Your task to perform on an android device: Is it going to rain this weekend? Image 0: 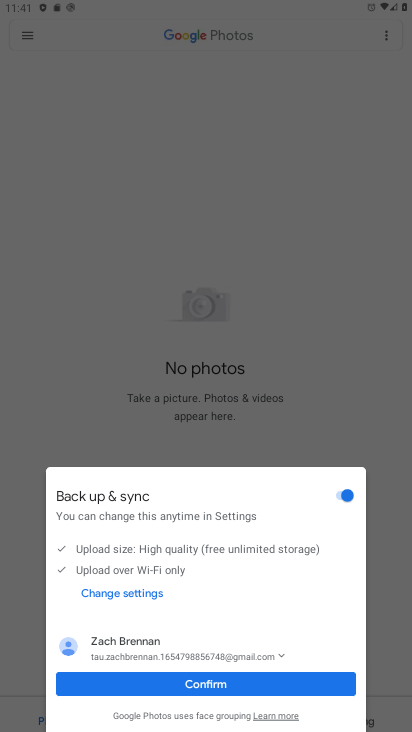
Step 0: click (263, 413)
Your task to perform on an android device: Is it going to rain this weekend? Image 1: 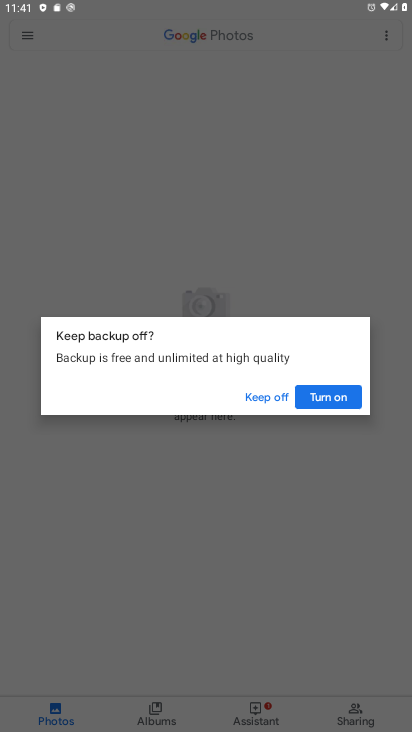
Step 1: press home button
Your task to perform on an android device: Is it going to rain this weekend? Image 2: 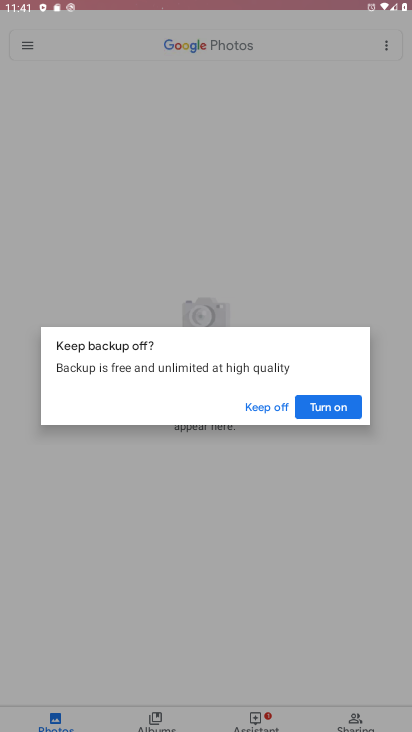
Step 2: drag from (181, 597) to (248, 352)
Your task to perform on an android device: Is it going to rain this weekend? Image 3: 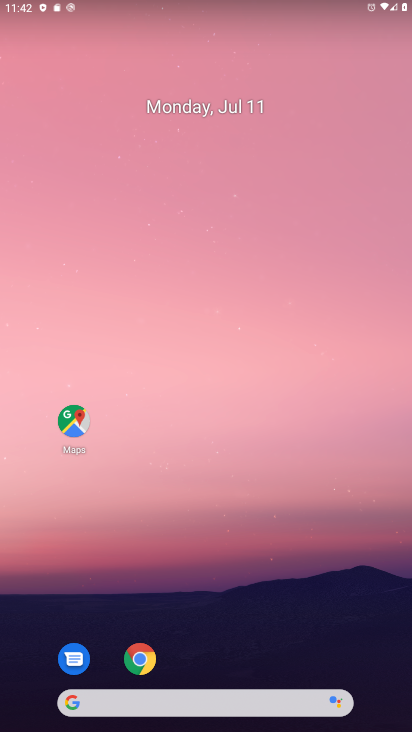
Step 3: drag from (208, 662) to (276, 318)
Your task to perform on an android device: Is it going to rain this weekend? Image 4: 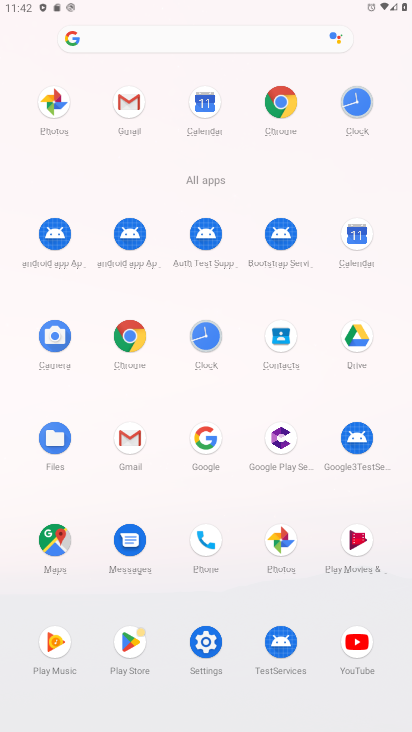
Step 4: click (367, 230)
Your task to perform on an android device: Is it going to rain this weekend? Image 5: 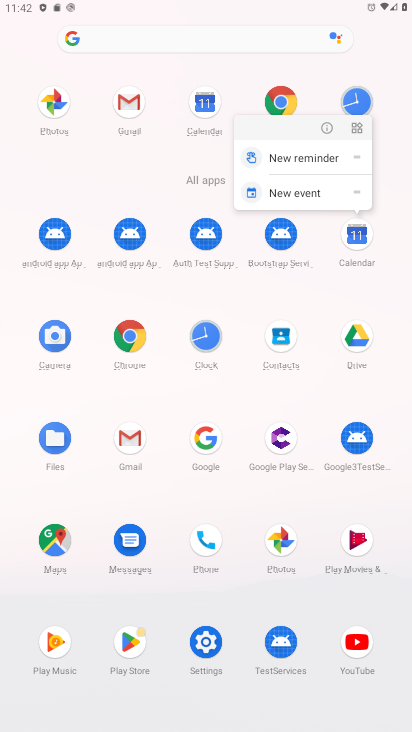
Step 5: click (177, 30)
Your task to perform on an android device: Is it going to rain this weekend? Image 6: 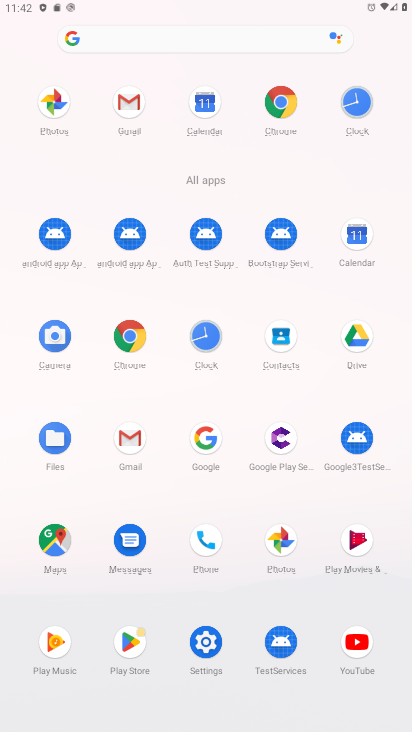
Step 6: click (176, 35)
Your task to perform on an android device: Is it going to rain this weekend? Image 7: 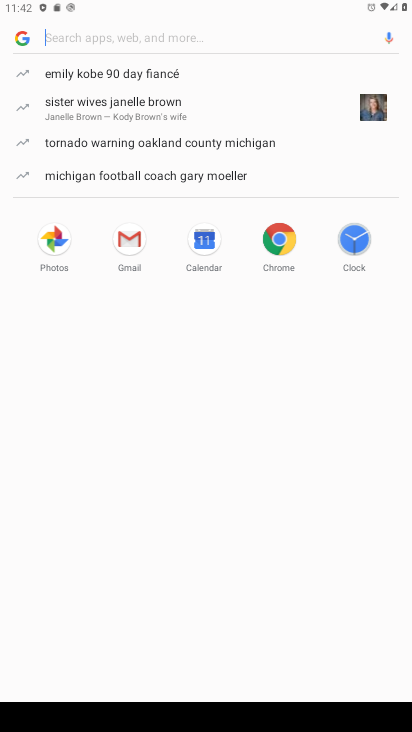
Step 7: type "Is it going to rain this weekend?"
Your task to perform on an android device: Is it going to rain this weekend? Image 8: 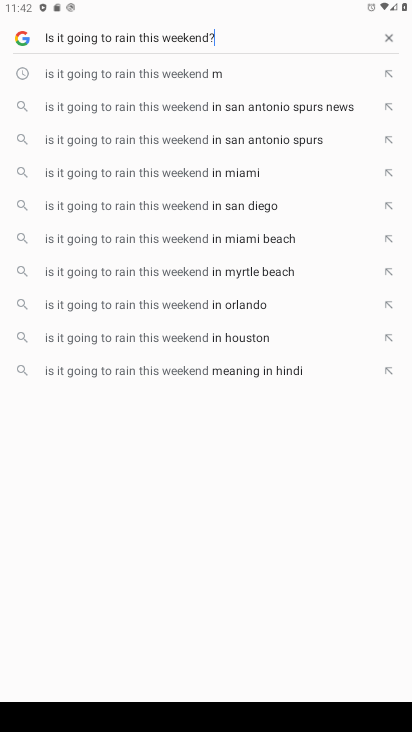
Step 8: type ""
Your task to perform on an android device: Is it going to rain this weekend? Image 9: 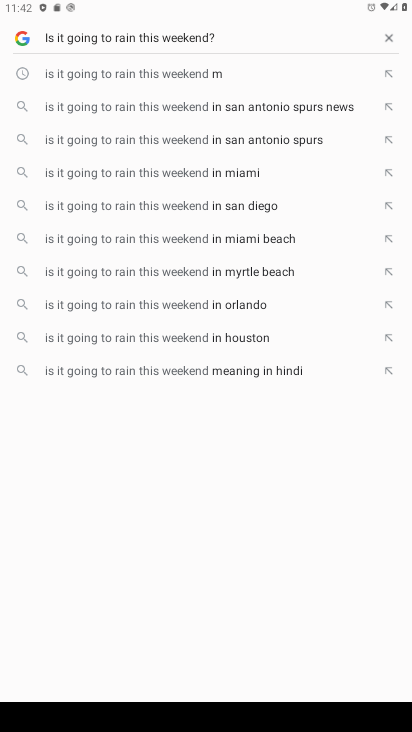
Step 9: click (173, 73)
Your task to perform on an android device: Is it going to rain this weekend? Image 10: 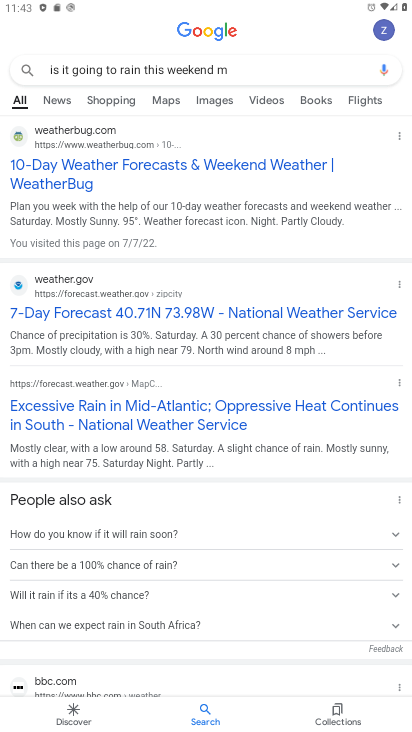
Step 10: task complete